Your task to perform on an android device: check google app version Image 0: 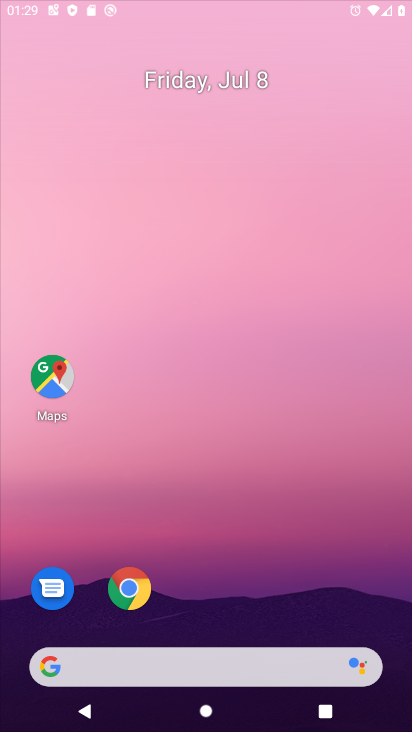
Step 0: drag from (203, 533) to (191, 168)
Your task to perform on an android device: check google app version Image 1: 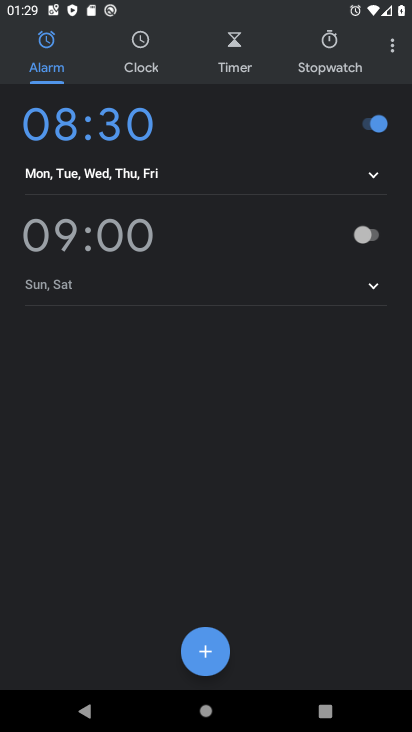
Step 1: drag from (195, 567) to (270, 189)
Your task to perform on an android device: check google app version Image 2: 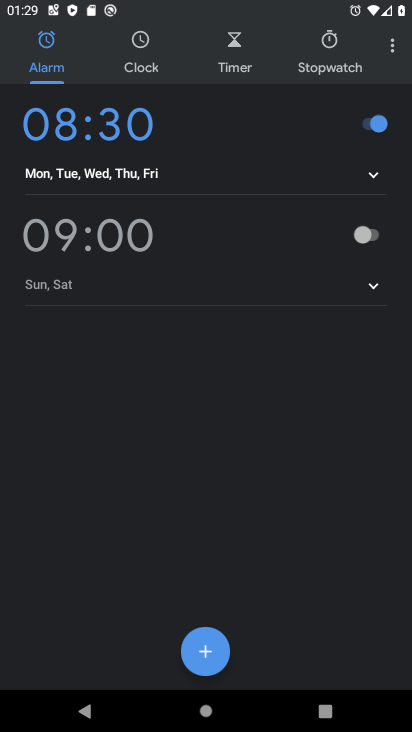
Step 2: press home button
Your task to perform on an android device: check google app version Image 3: 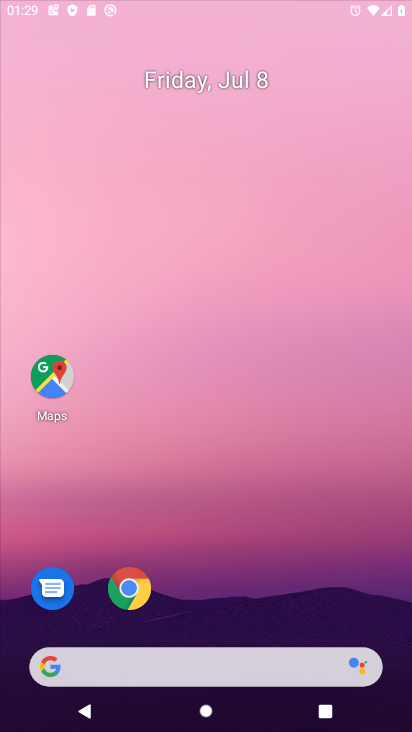
Step 3: drag from (247, 488) to (269, 112)
Your task to perform on an android device: check google app version Image 4: 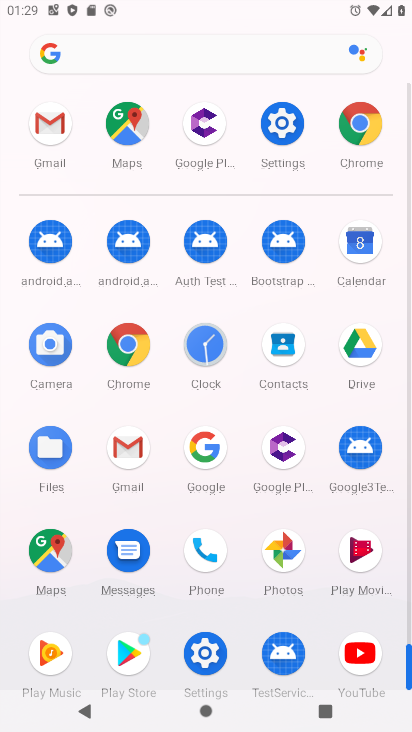
Step 4: click (210, 455)
Your task to perform on an android device: check google app version Image 5: 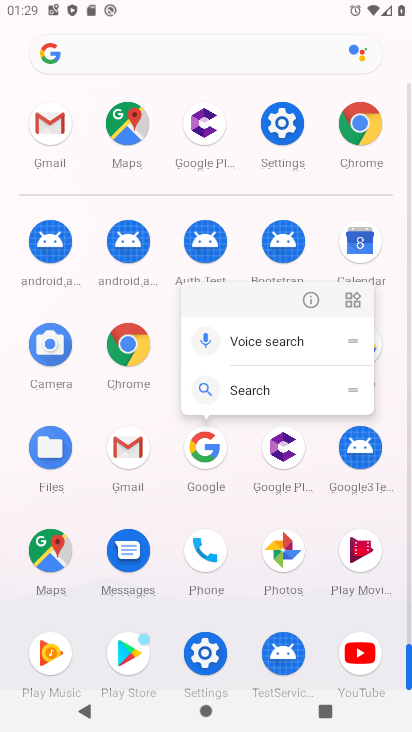
Step 5: click (326, 295)
Your task to perform on an android device: check google app version Image 6: 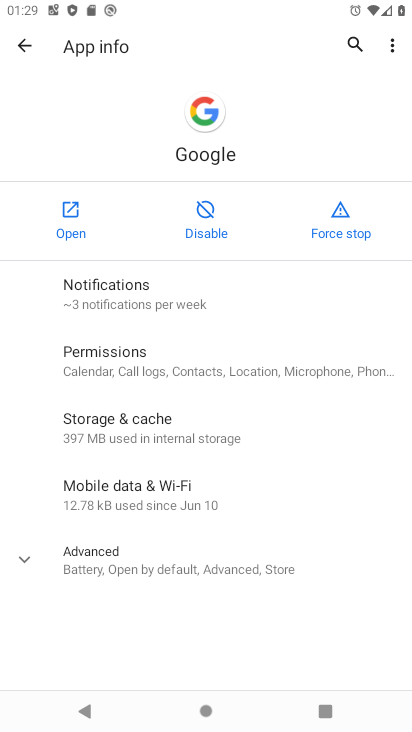
Step 6: click (58, 221)
Your task to perform on an android device: check google app version Image 7: 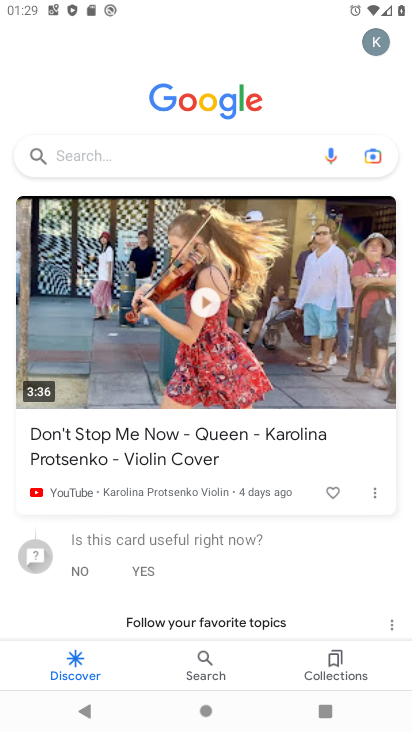
Step 7: drag from (278, 499) to (260, 623)
Your task to perform on an android device: check google app version Image 8: 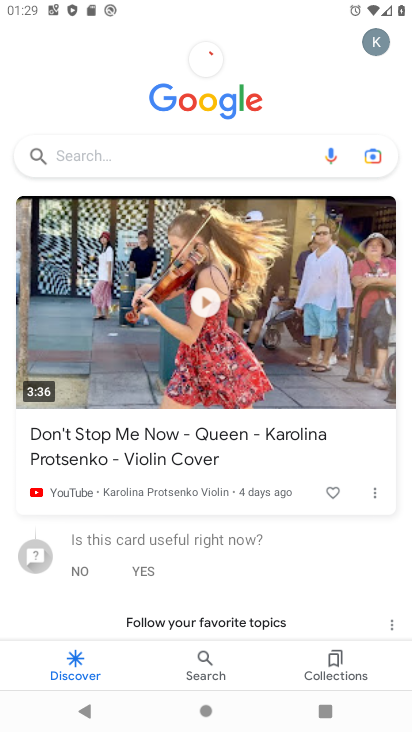
Step 8: click (376, 35)
Your task to perform on an android device: check google app version Image 9: 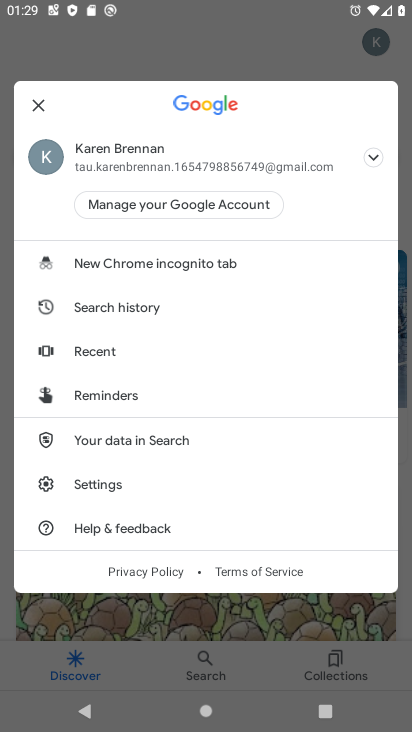
Step 9: click (111, 475)
Your task to perform on an android device: check google app version Image 10: 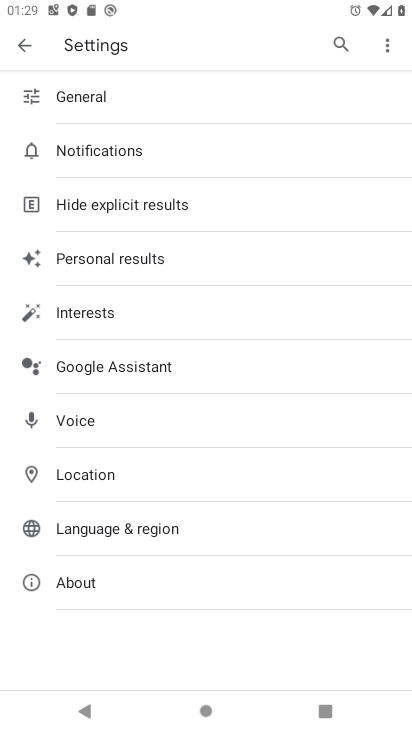
Step 10: drag from (136, 392) to (160, 176)
Your task to perform on an android device: check google app version Image 11: 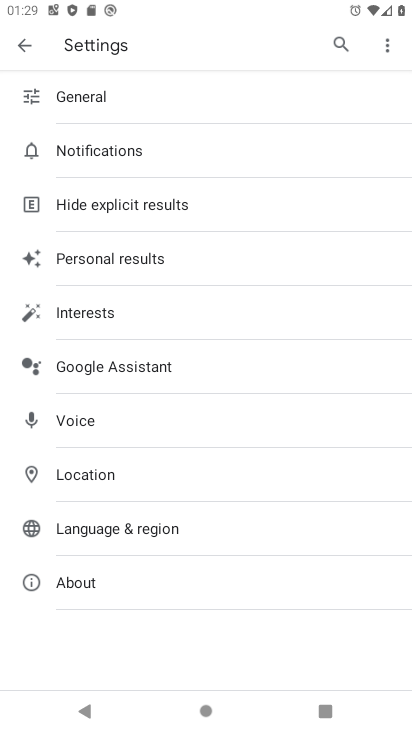
Step 11: click (139, 551)
Your task to perform on an android device: check google app version Image 12: 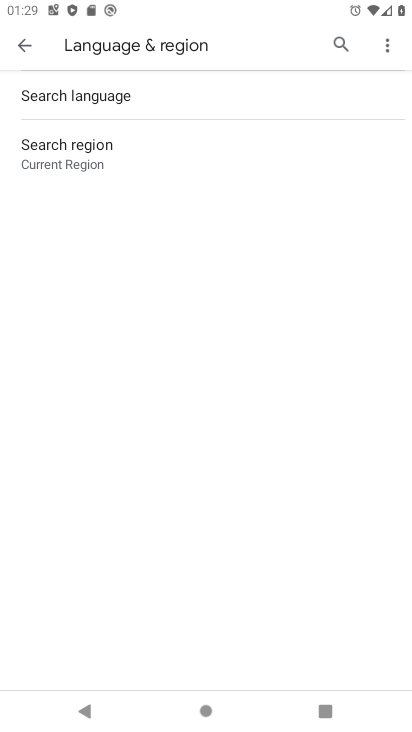
Step 12: click (18, 49)
Your task to perform on an android device: check google app version Image 13: 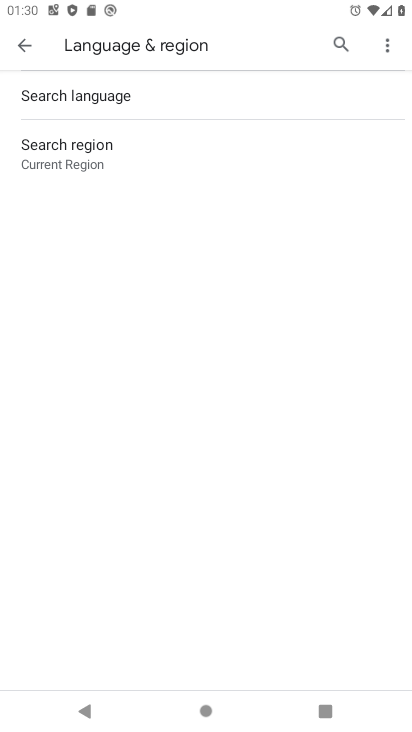
Step 13: click (28, 41)
Your task to perform on an android device: check google app version Image 14: 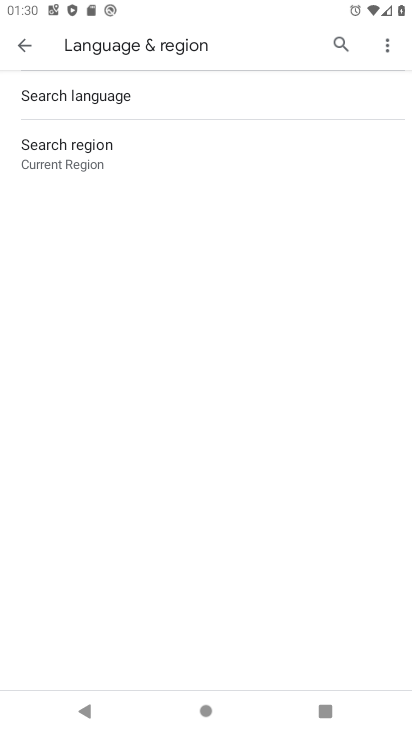
Step 14: press back button
Your task to perform on an android device: check google app version Image 15: 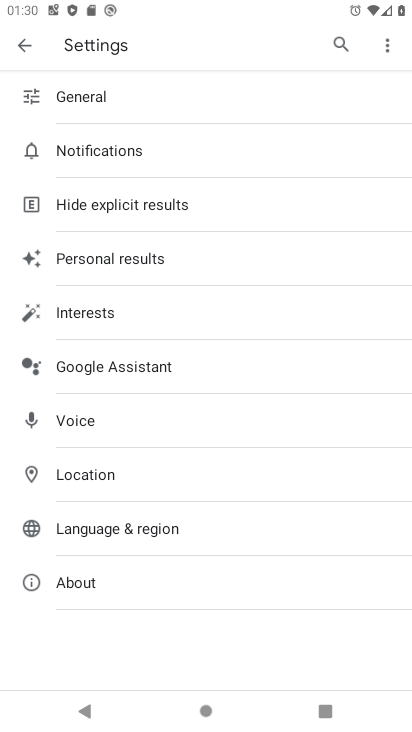
Step 15: click (90, 573)
Your task to perform on an android device: check google app version Image 16: 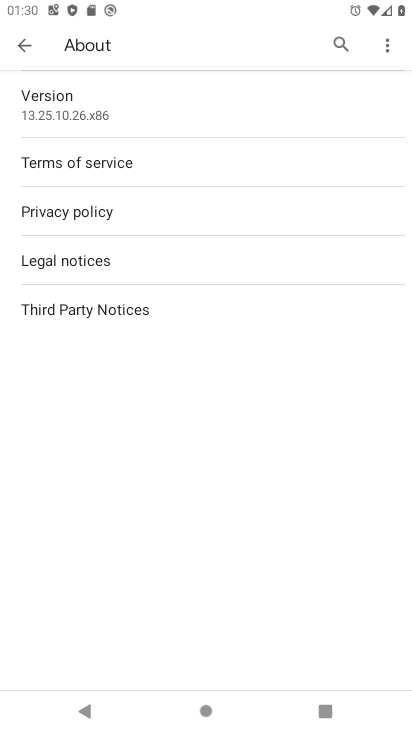
Step 16: click (104, 120)
Your task to perform on an android device: check google app version Image 17: 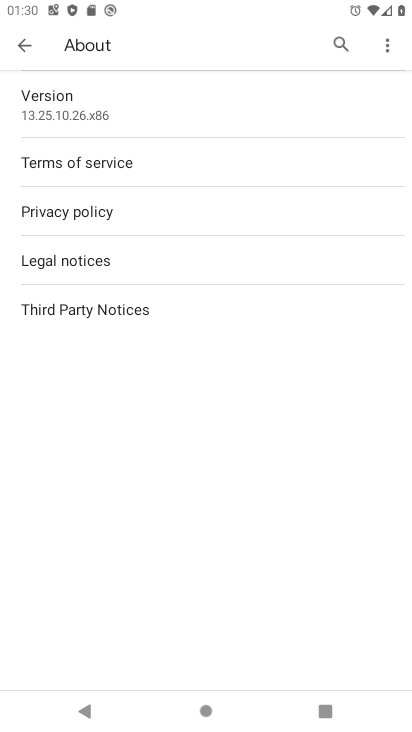
Step 17: task complete